Your task to perform on an android device: turn off translation in the chrome app Image 0: 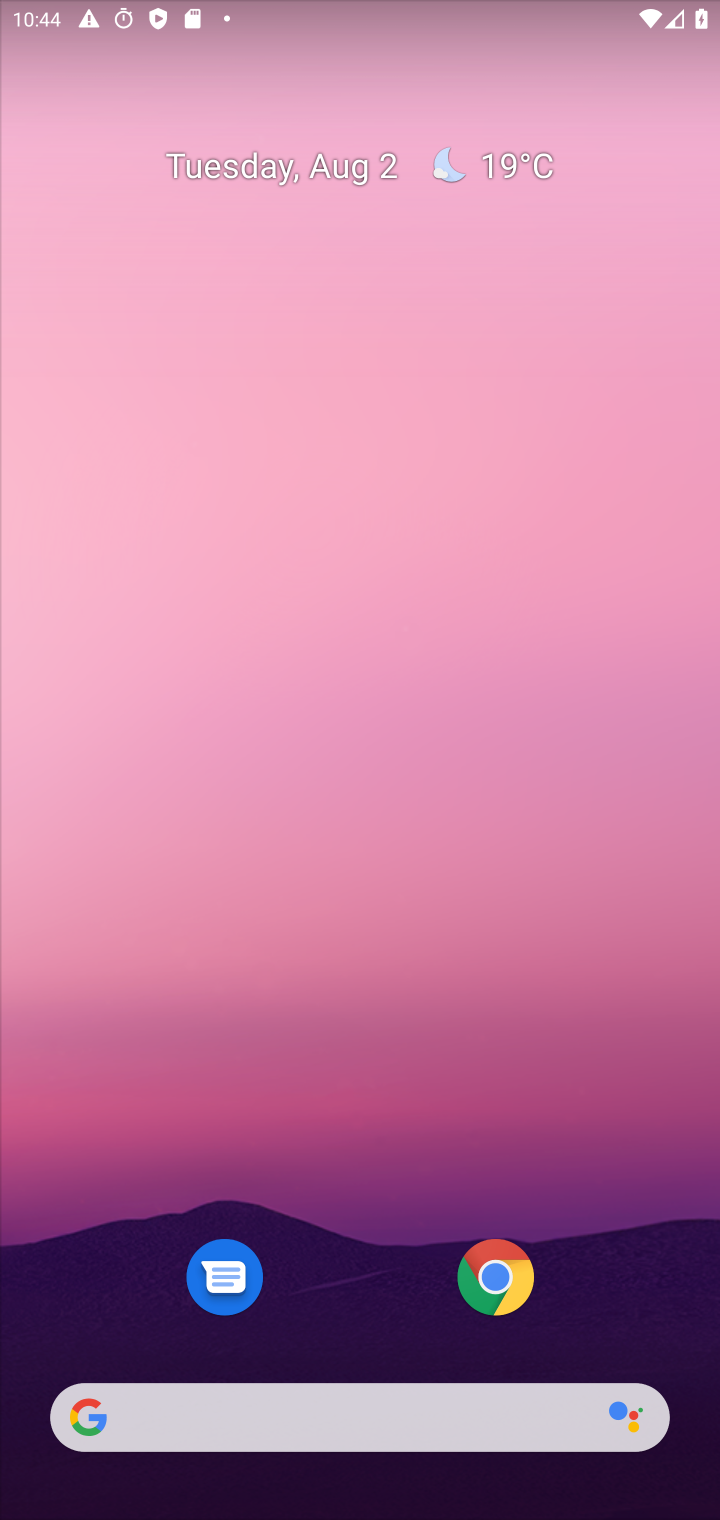
Step 0: press home button
Your task to perform on an android device: turn off translation in the chrome app Image 1: 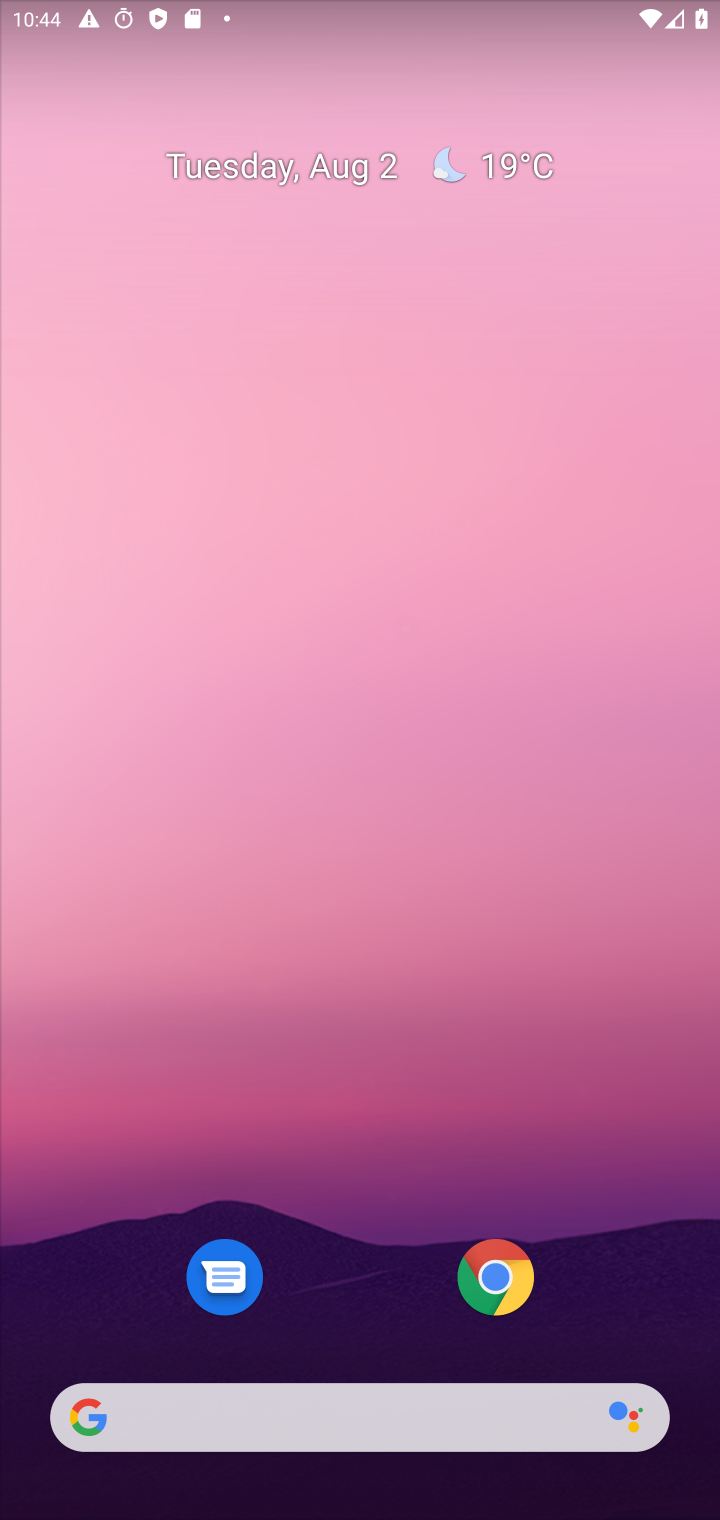
Step 1: click (511, 1290)
Your task to perform on an android device: turn off translation in the chrome app Image 2: 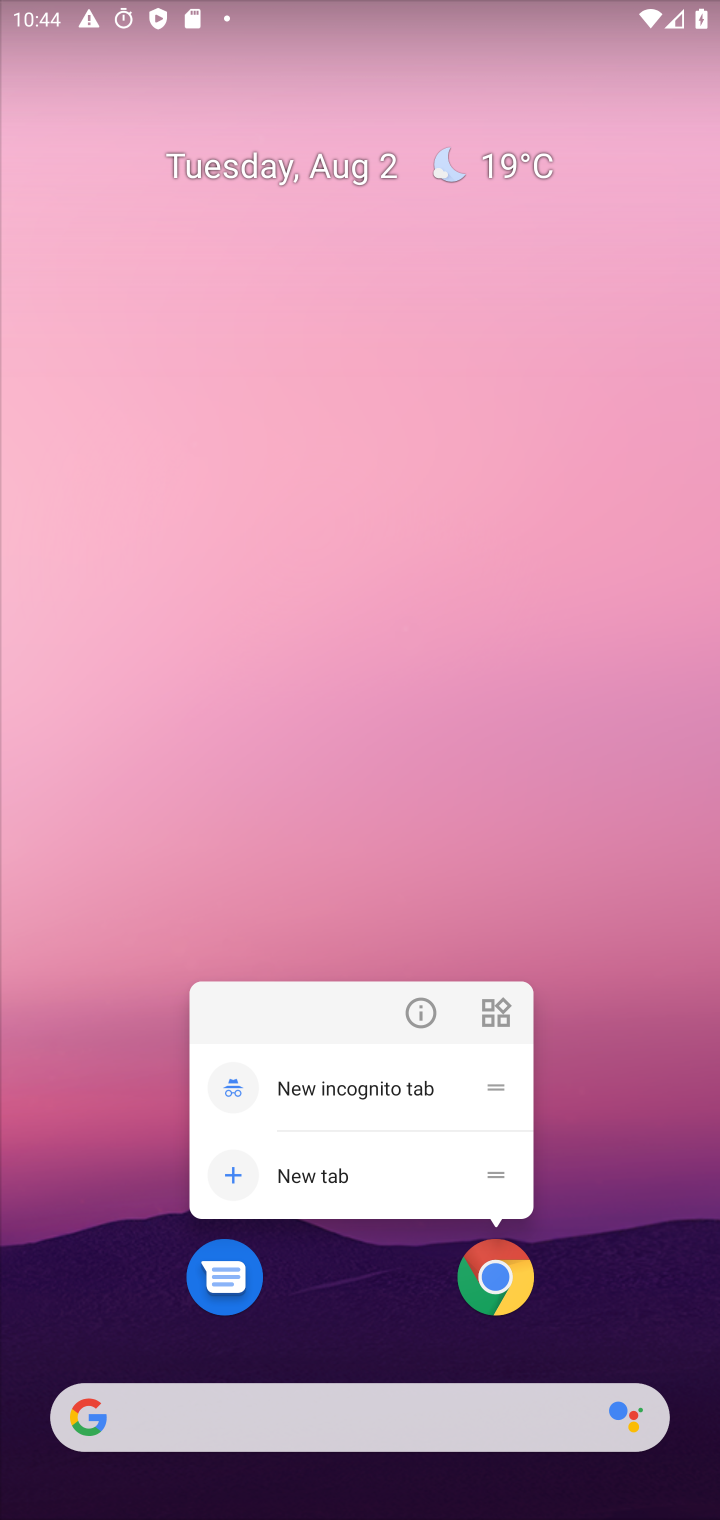
Step 2: click (507, 1275)
Your task to perform on an android device: turn off translation in the chrome app Image 3: 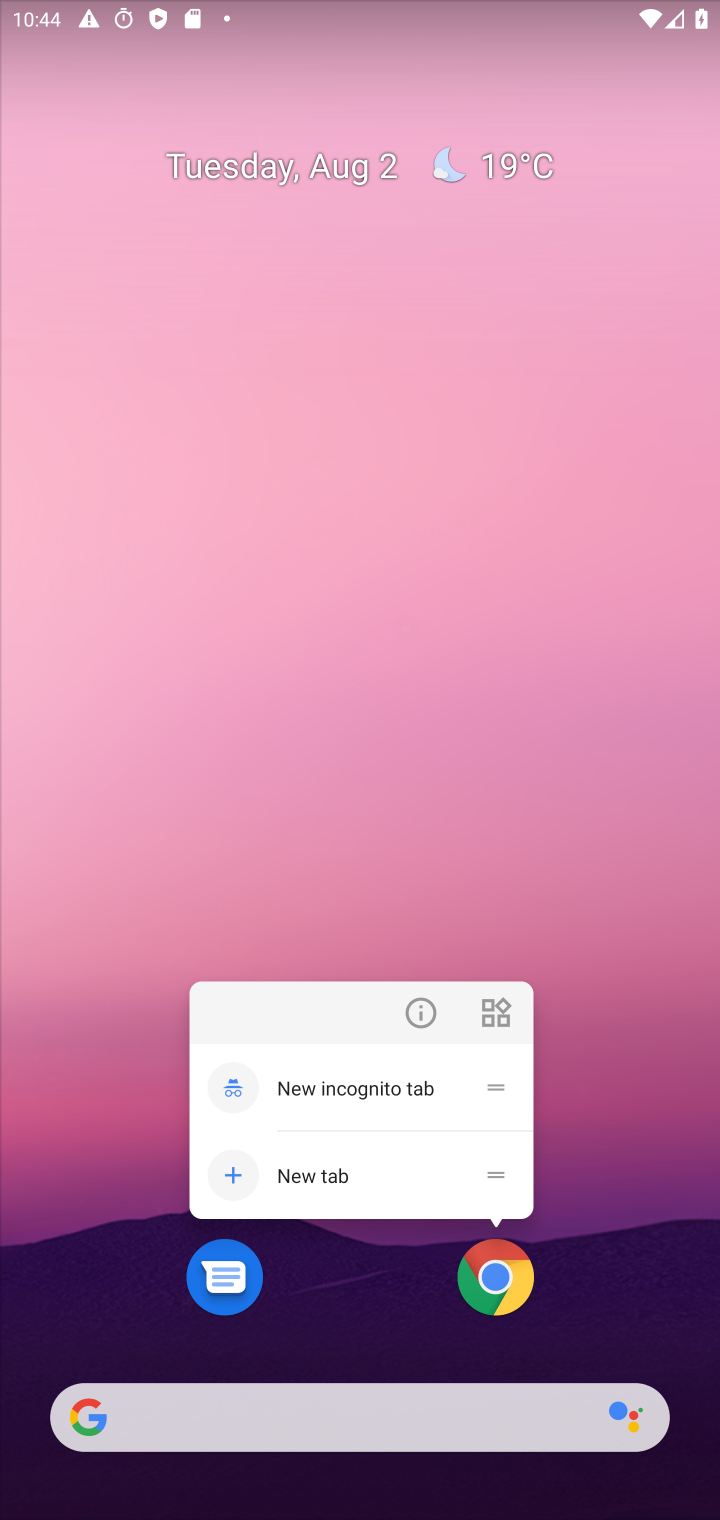
Step 3: click (508, 1276)
Your task to perform on an android device: turn off translation in the chrome app Image 4: 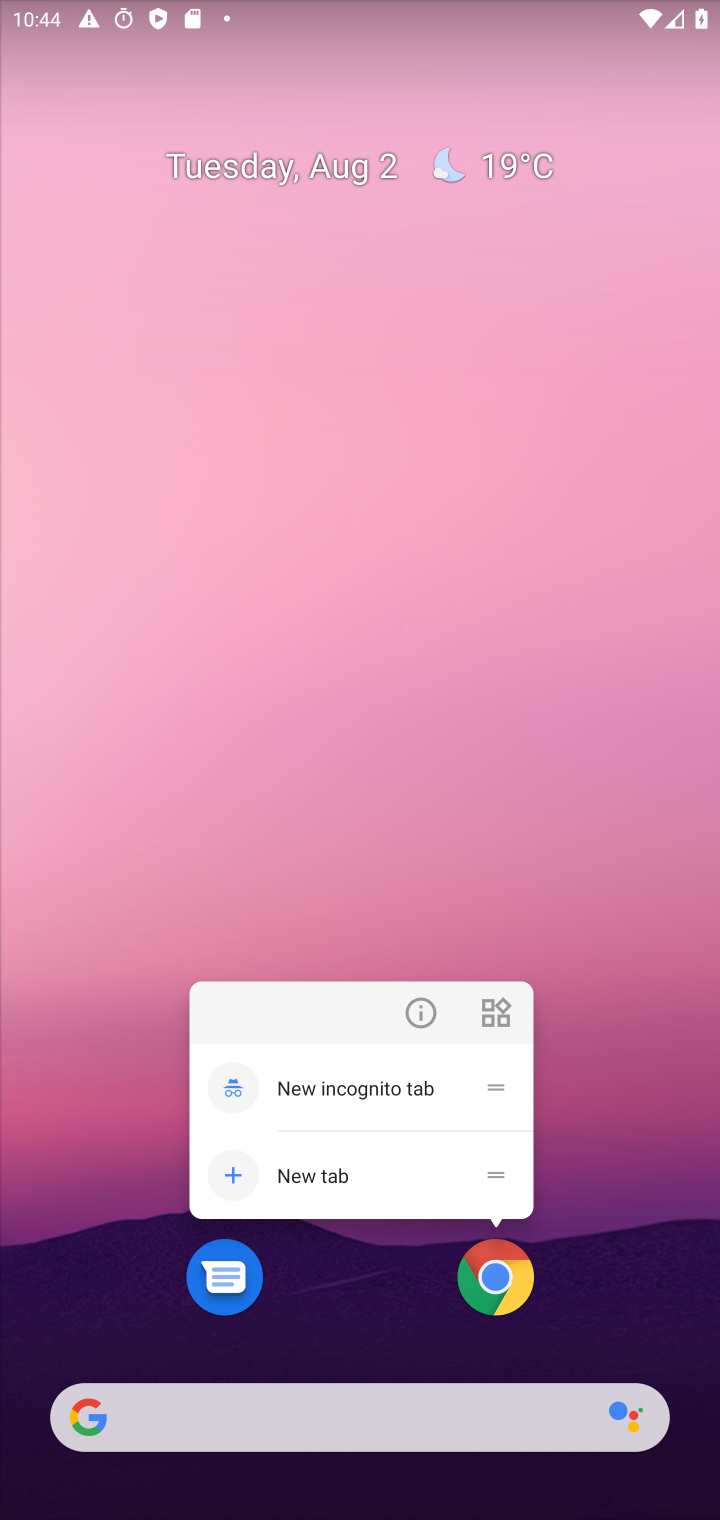
Step 4: click (508, 1276)
Your task to perform on an android device: turn off translation in the chrome app Image 5: 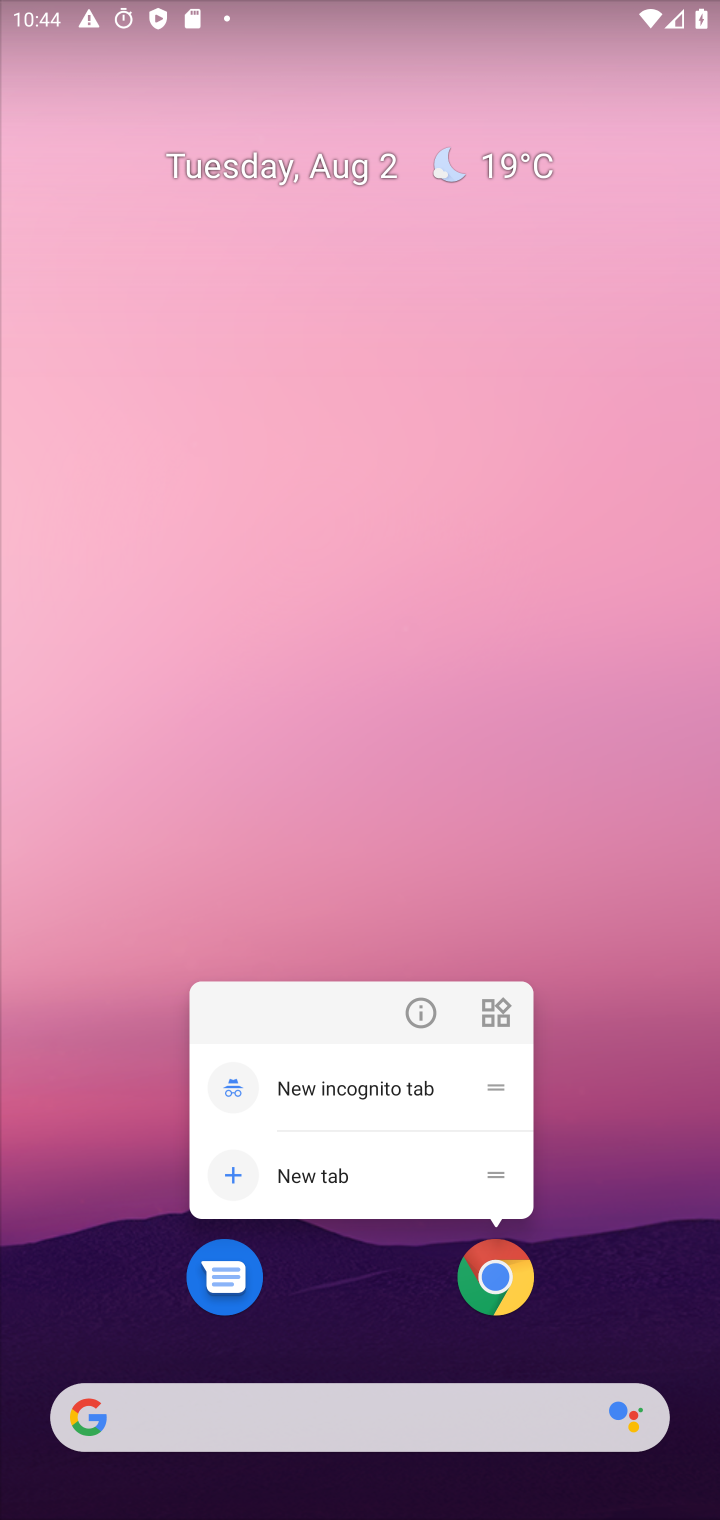
Step 5: click (493, 1292)
Your task to perform on an android device: turn off translation in the chrome app Image 6: 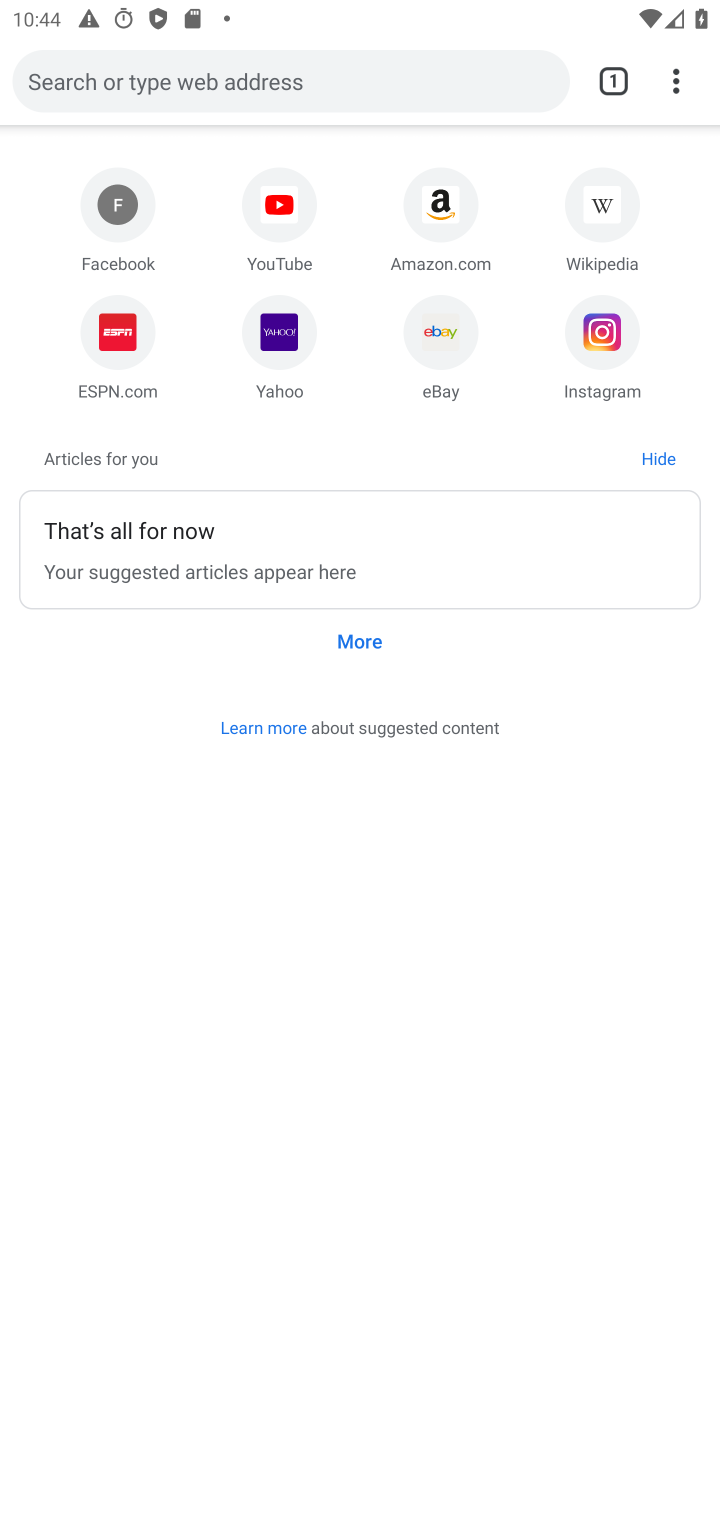
Step 6: drag from (667, 83) to (387, 682)
Your task to perform on an android device: turn off translation in the chrome app Image 7: 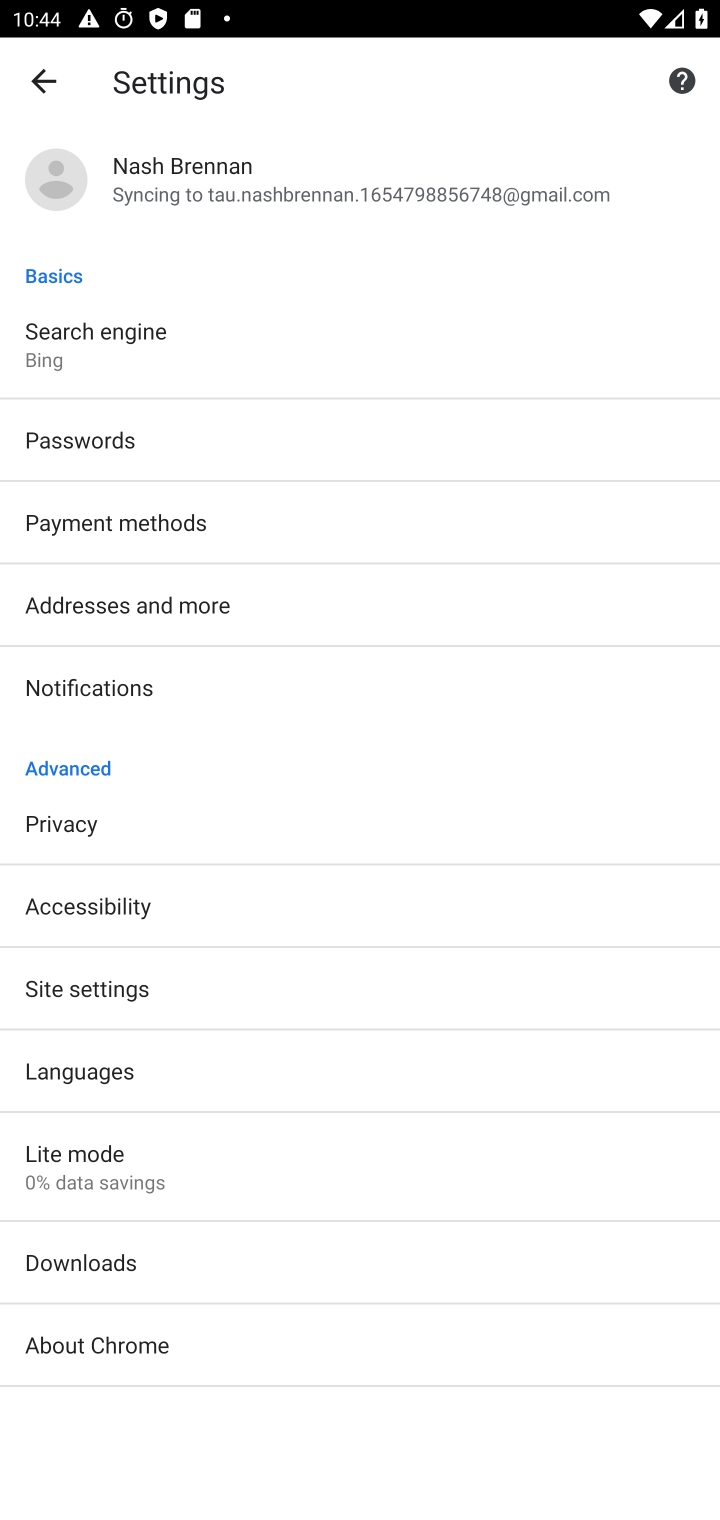
Step 7: click (85, 1078)
Your task to perform on an android device: turn off translation in the chrome app Image 8: 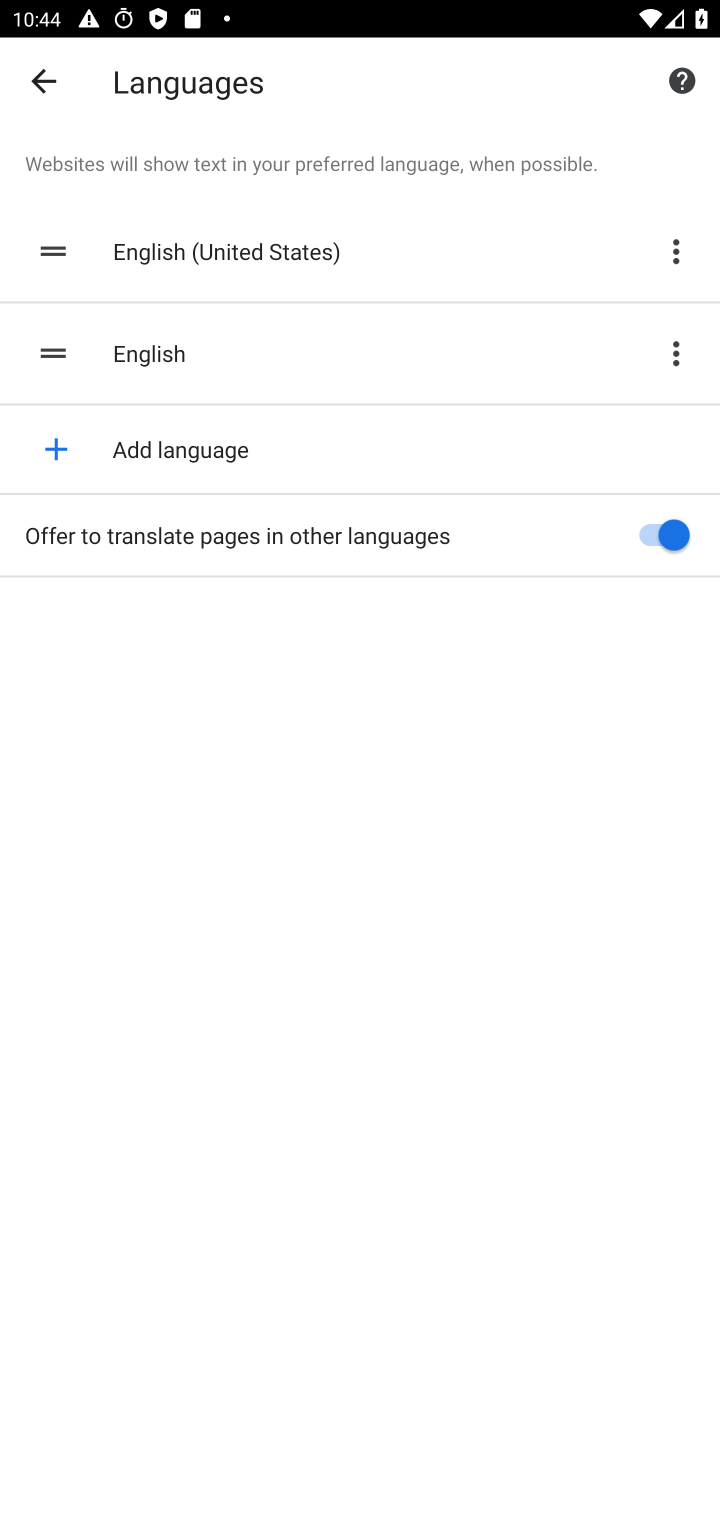
Step 8: click (676, 526)
Your task to perform on an android device: turn off translation in the chrome app Image 9: 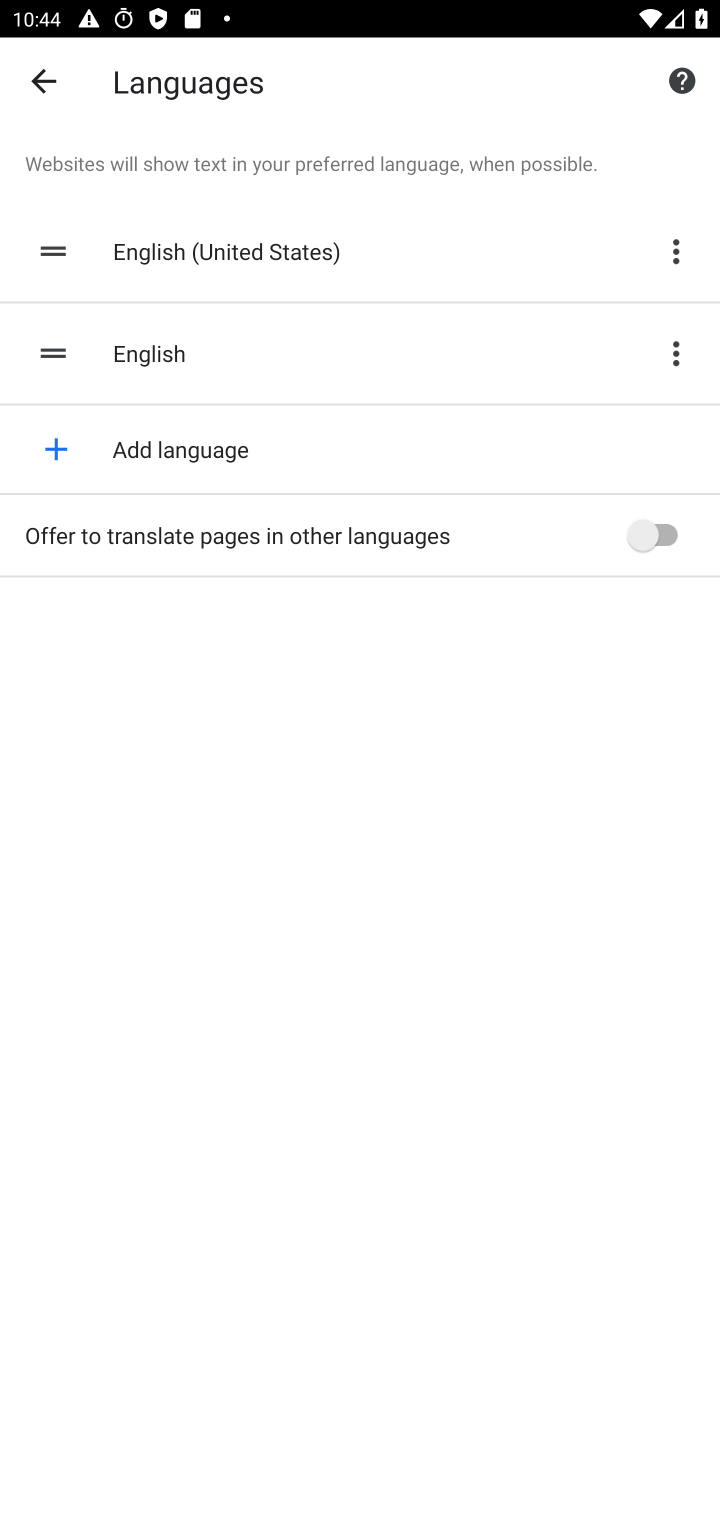
Step 9: task complete